Your task to perform on an android device: search for starred emails in the gmail app Image 0: 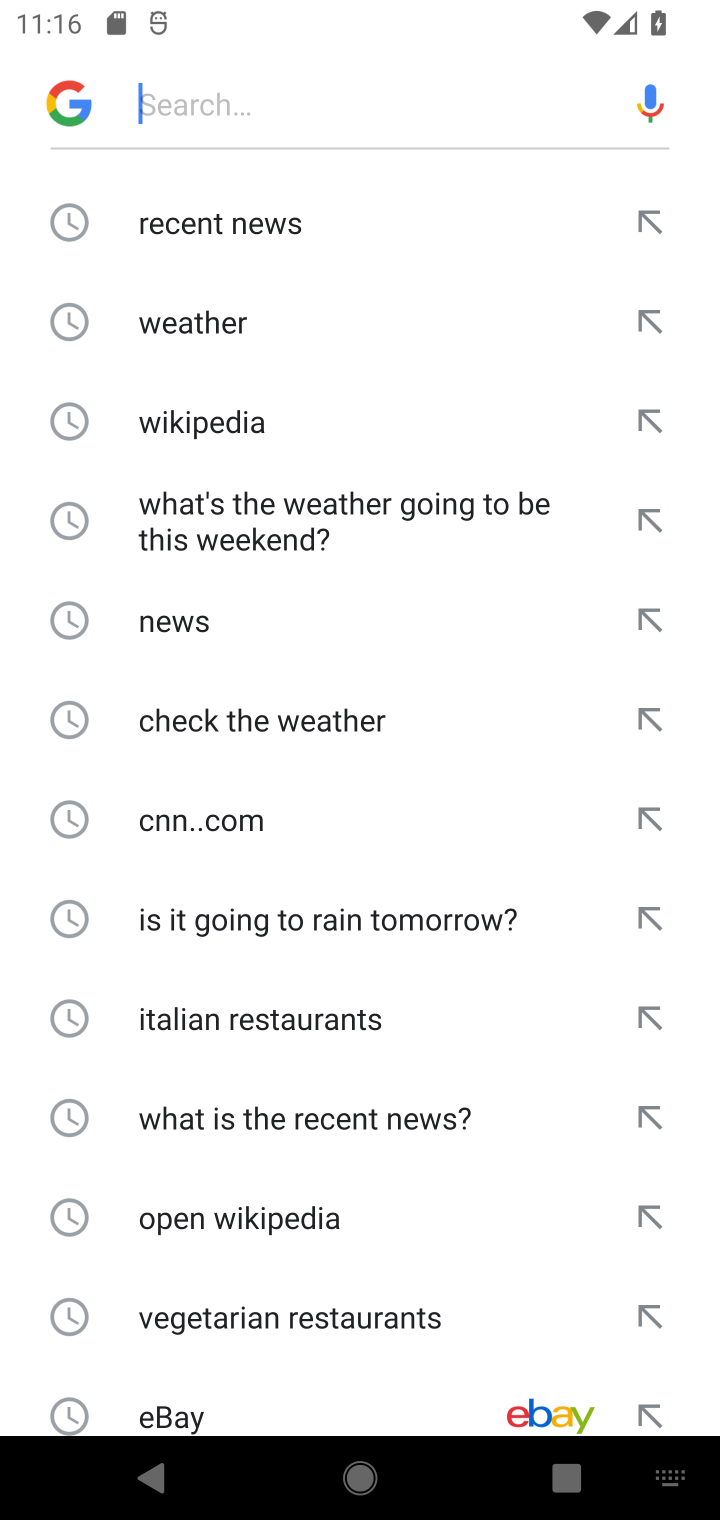
Step 0: press home button
Your task to perform on an android device: search for starred emails in the gmail app Image 1: 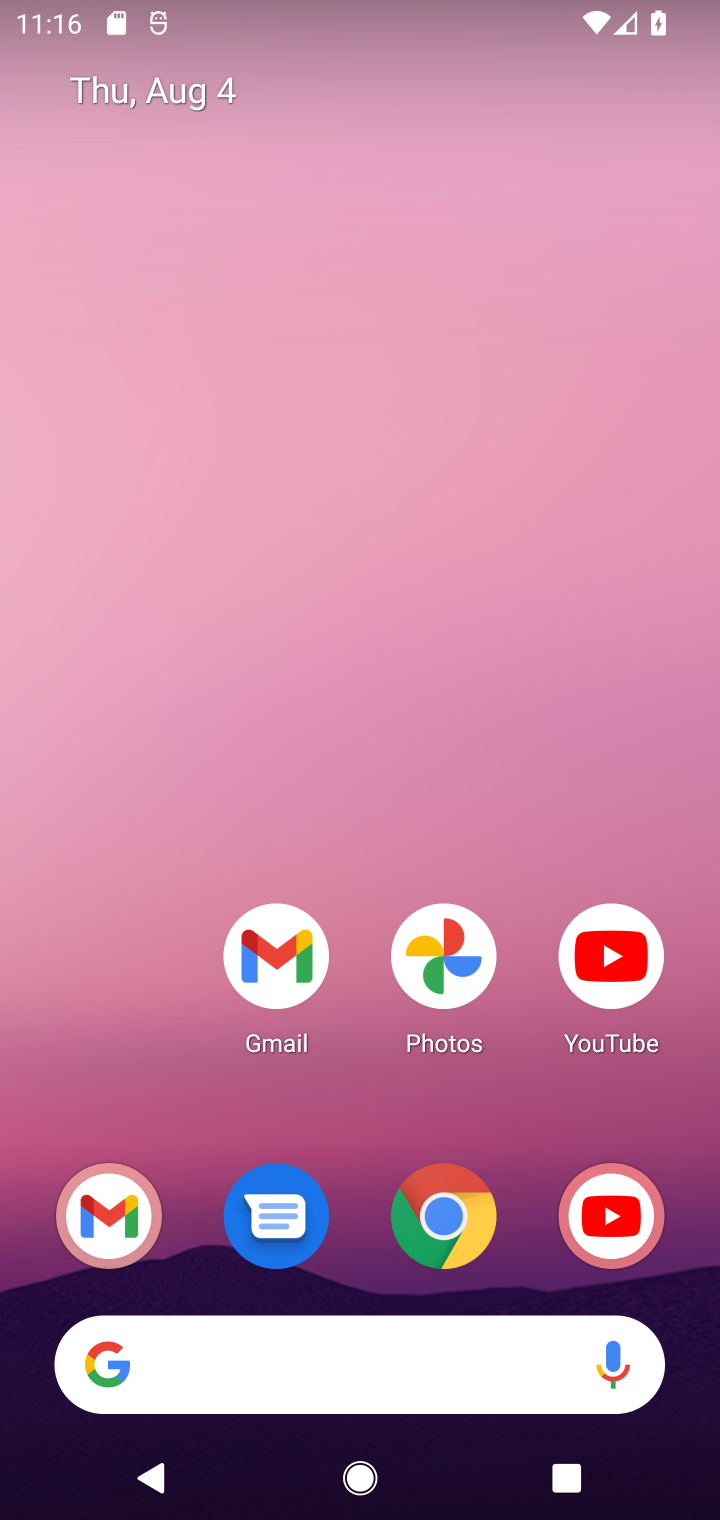
Step 1: click (286, 971)
Your task to perform on an android device: search for starred emails in the gmail app Image 2: 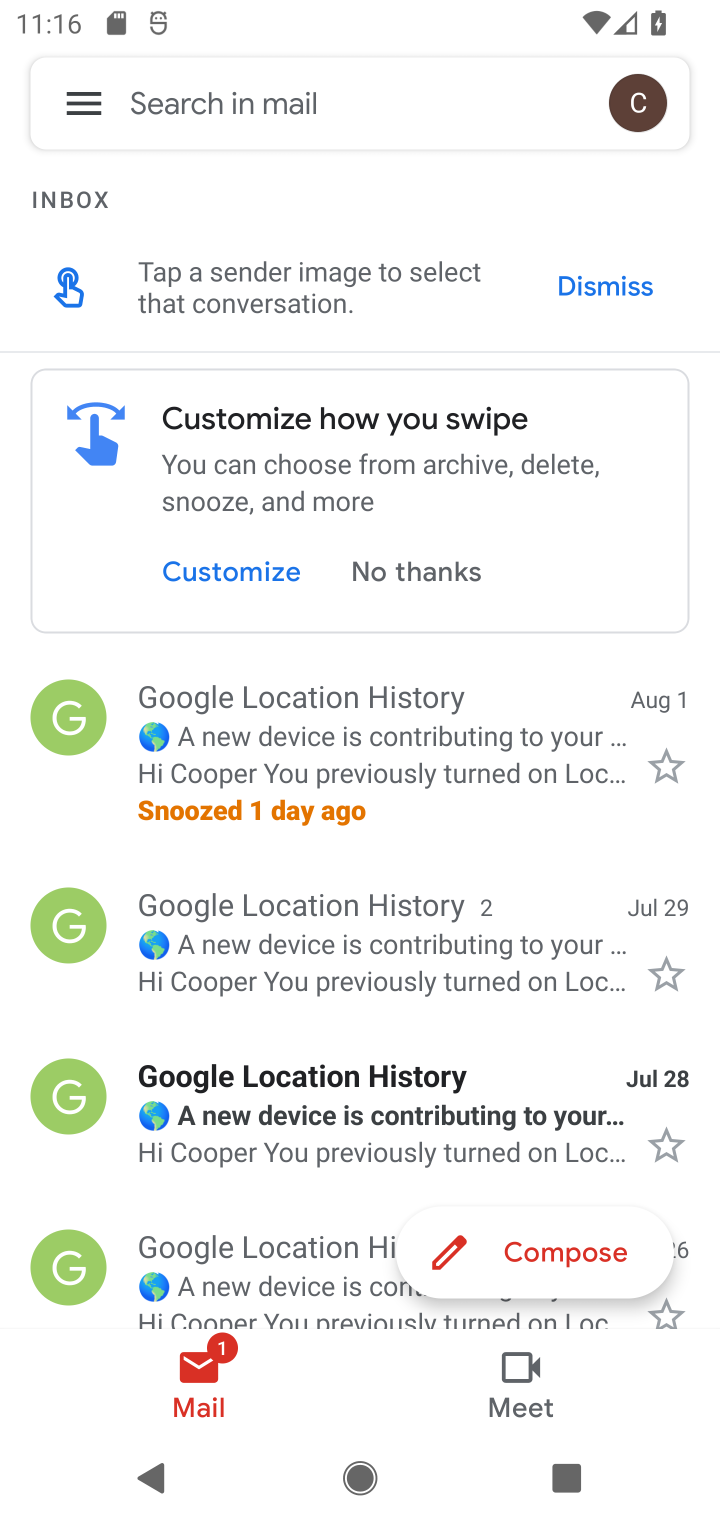
Step 2: click (86, 103)
Your task to perform on an android device: search for starred emails in the gmail app Image 3: 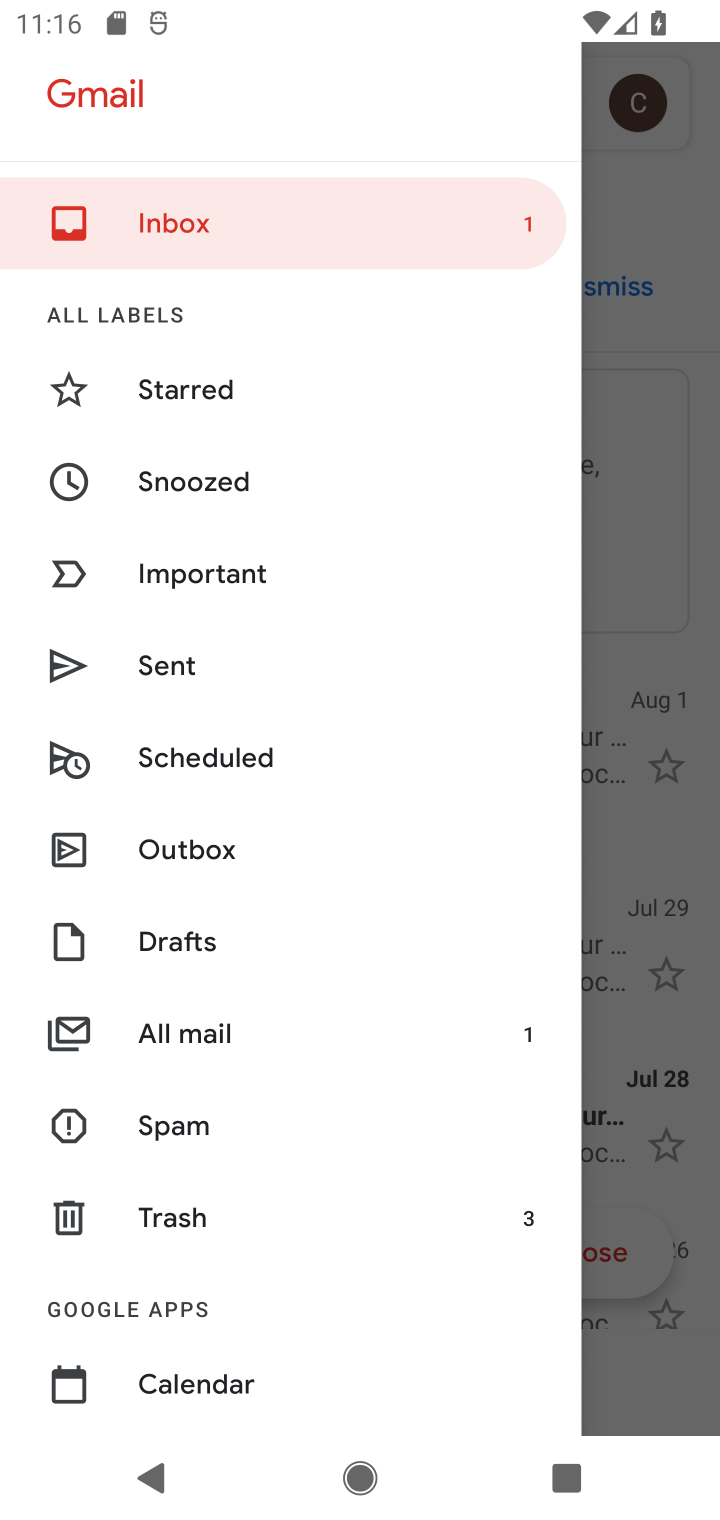
Step 3: click (182, 371)
Your task to perform on an android device: search for starred emails in the gmail app Image 4: 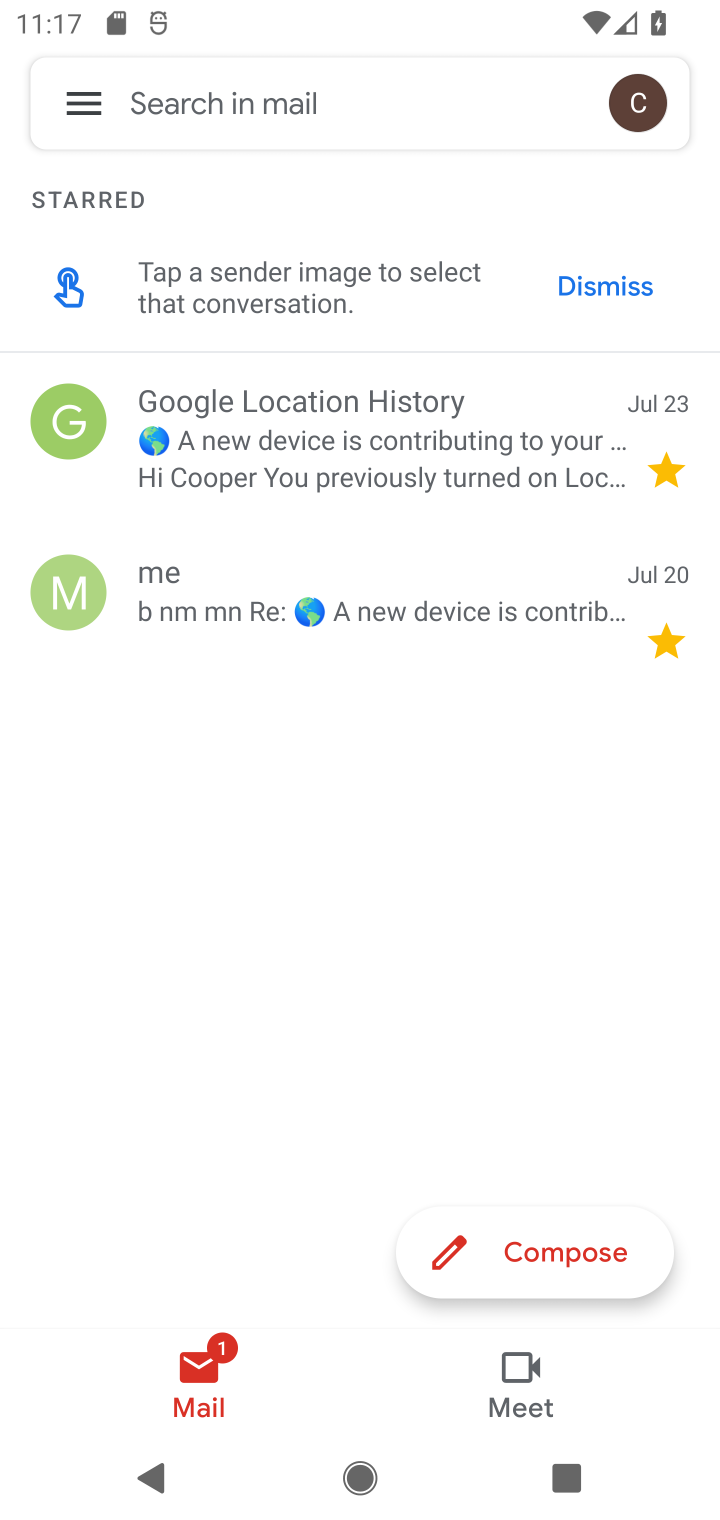
Step 4: task complete